Your task to perform on an android device: open a bookmark in the chrome app Image 0: 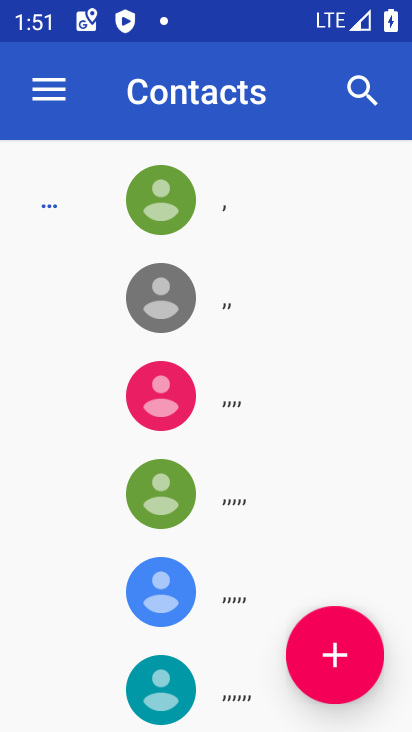
Step 0: press home button
Your task to perform on an android device: open a bookmark in the chrome app Image 1: 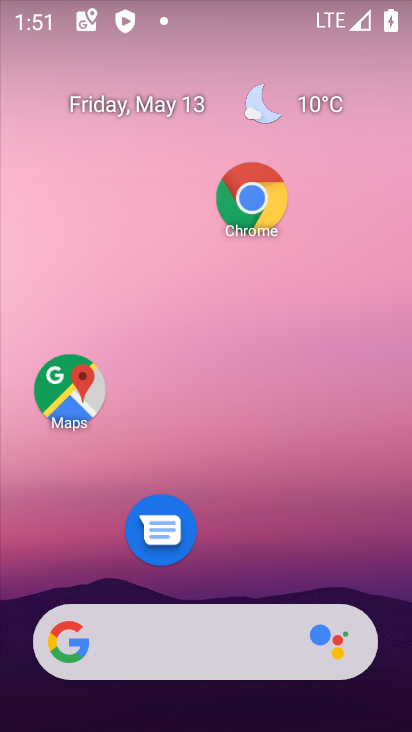
Step 1: click (251, 197)
Your task to perform on an android device: open a bookmark in the chrome app Image 2: 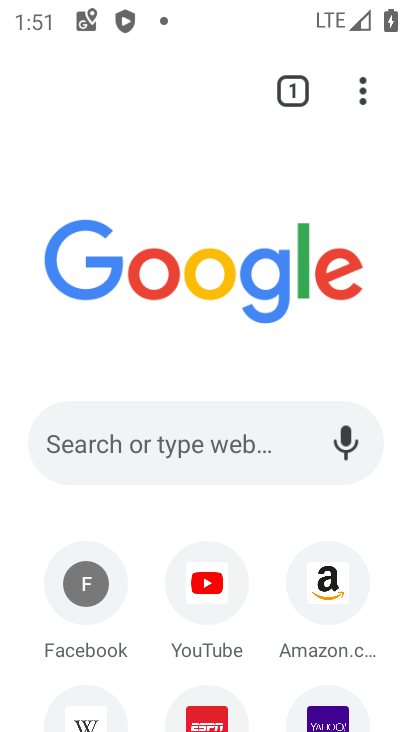
Step 2: click (373, 99)
Your task to perform on an android device: open a bookmark in the chrome app Image 3: 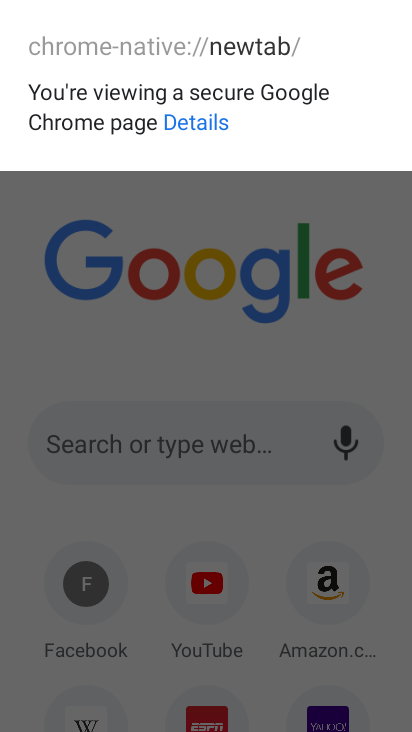
Step 3: click (322, 264)
Your task to perform on an android device: open a bookmark in the chrome app Image 4: 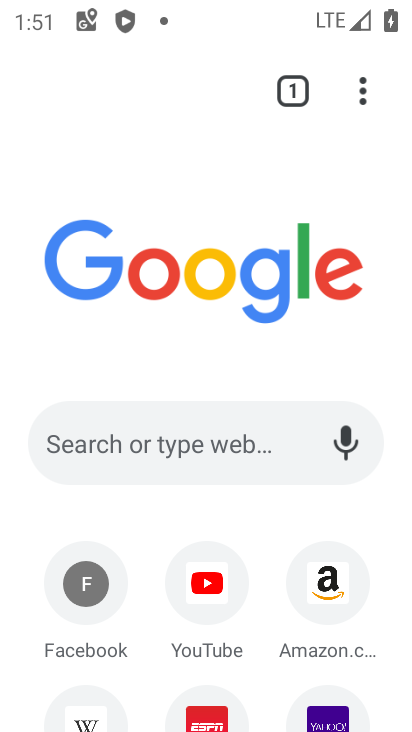
Step 4: task complete